Your task to perform on an android device: What's on my calendar today? Image 0: 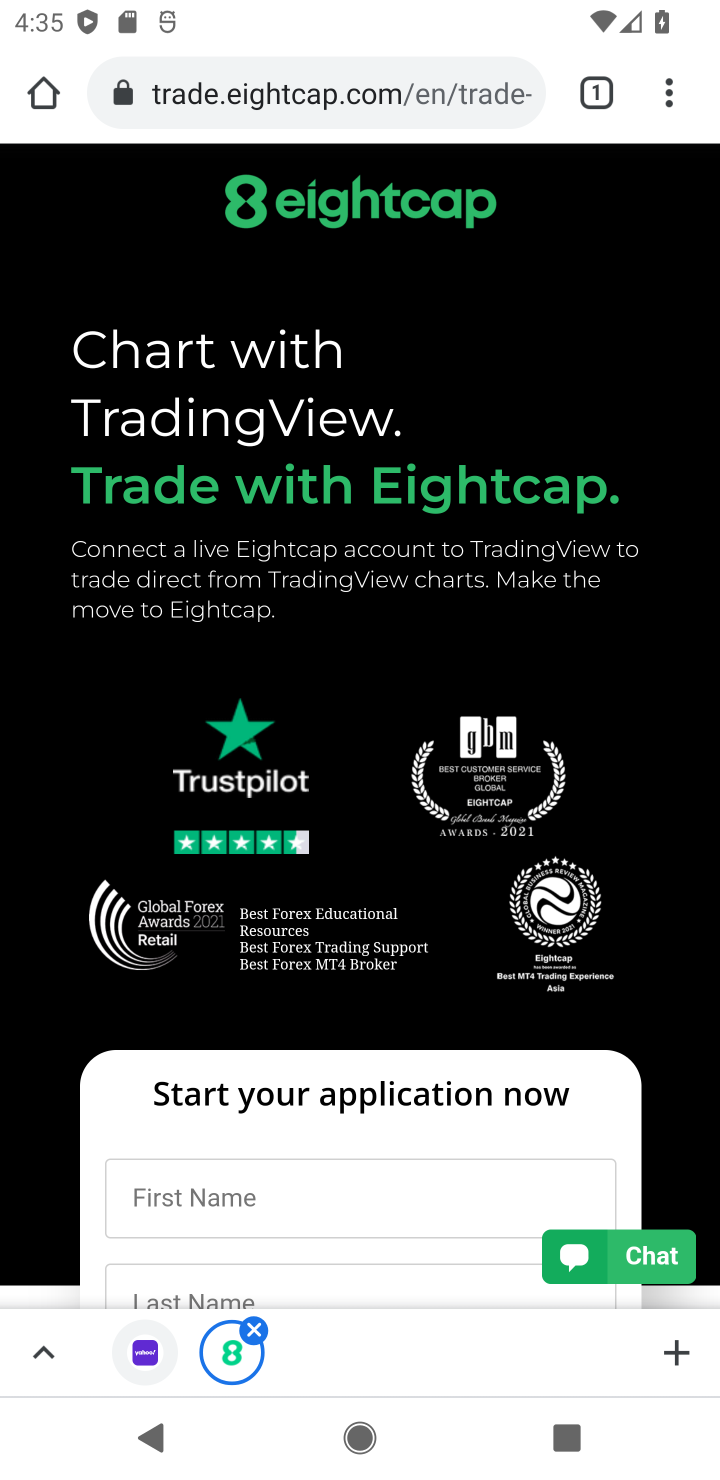
Step 0: press home button
Your task to perform on an android device: What's on my calendar today? Image 1: 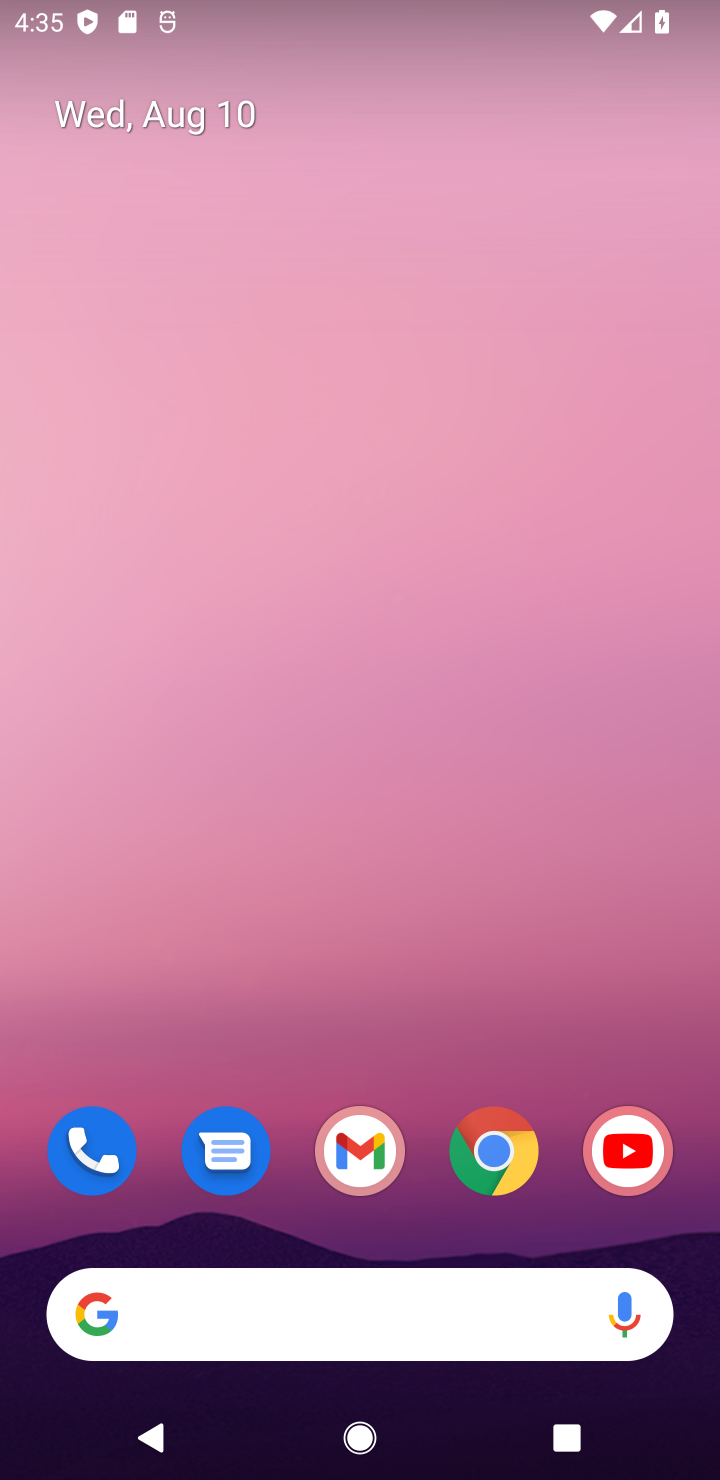
Step 1: drag from (337, 994) to (320, 559)
Your task to perform on an android device: What's on my calendar today? Image 2: 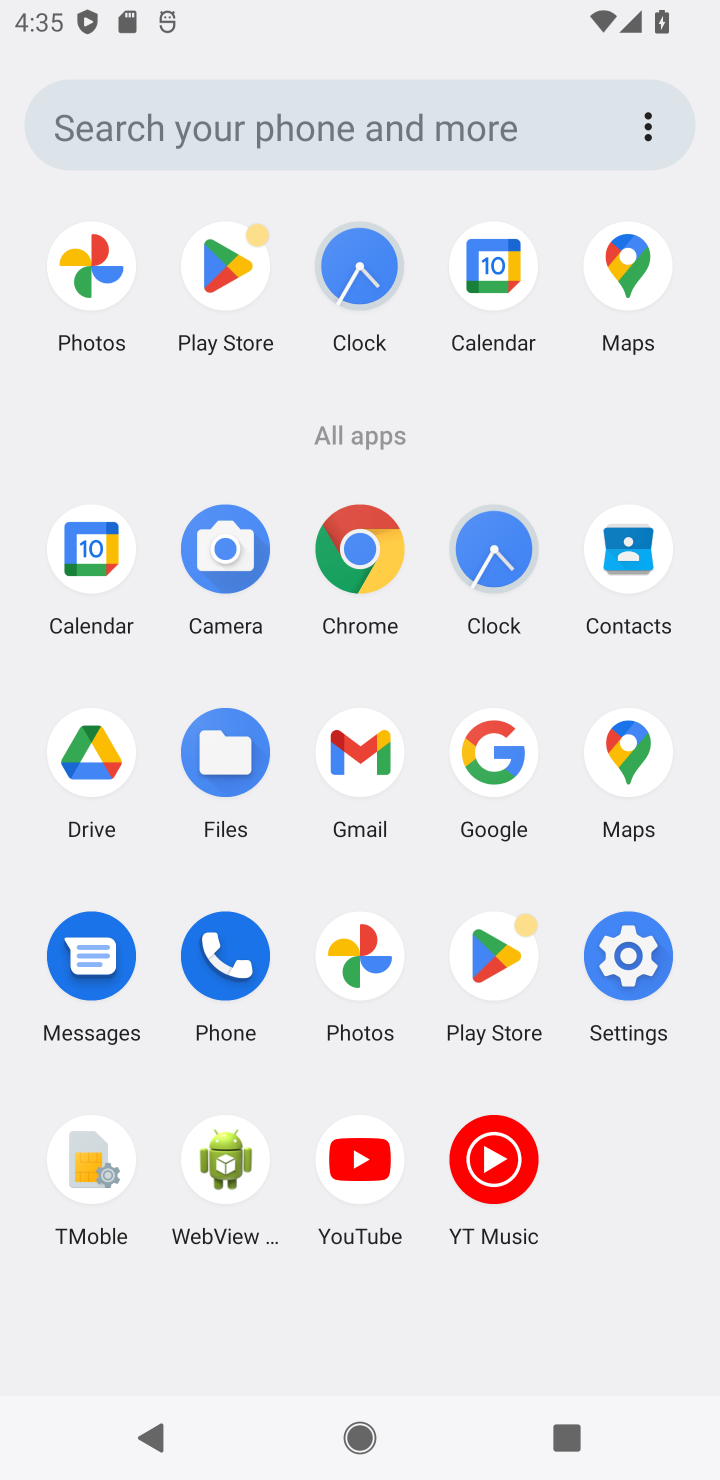
Step 2: click (90, 534)
Your task to perform on an android device: What's on my calendar today? Image 3: 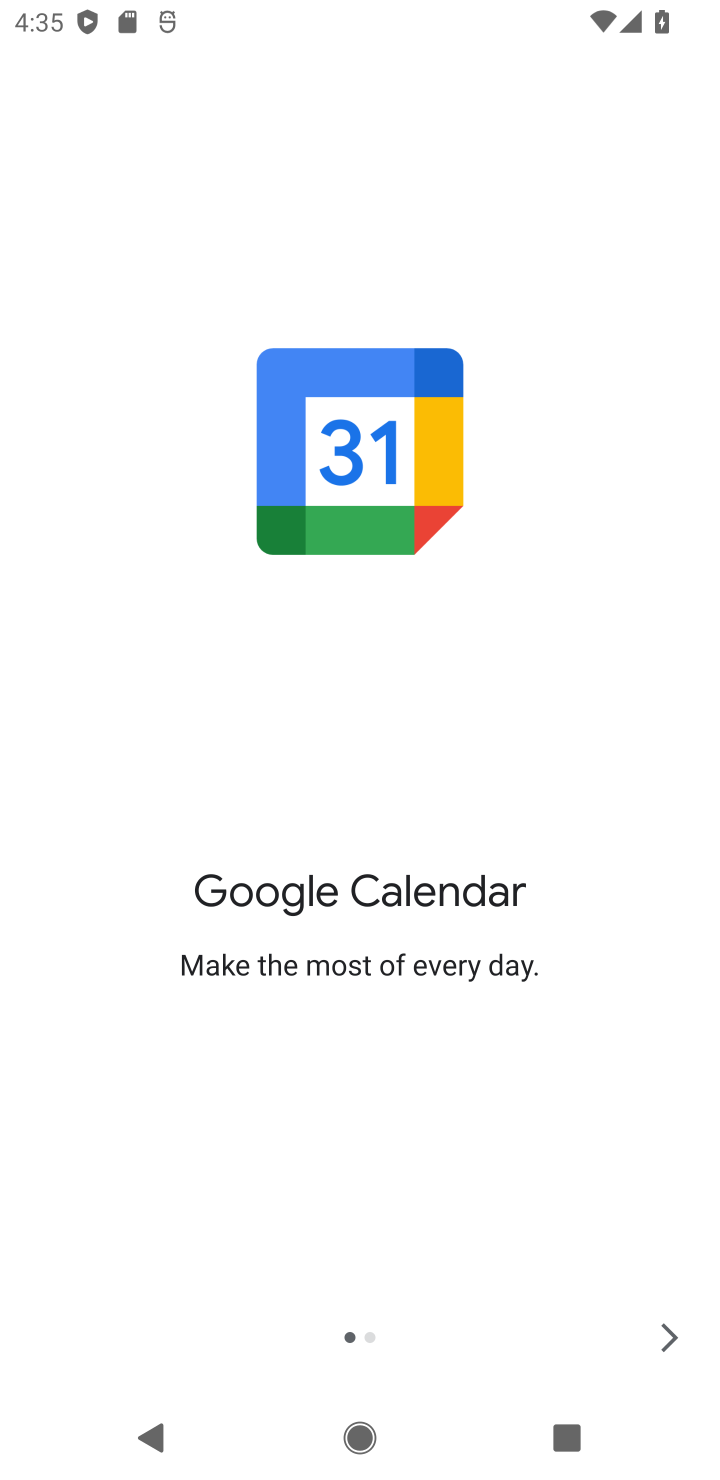
Step 3: click (665, 1348)
Your task to perform on an android device: What's on my calendar today? Image 4: 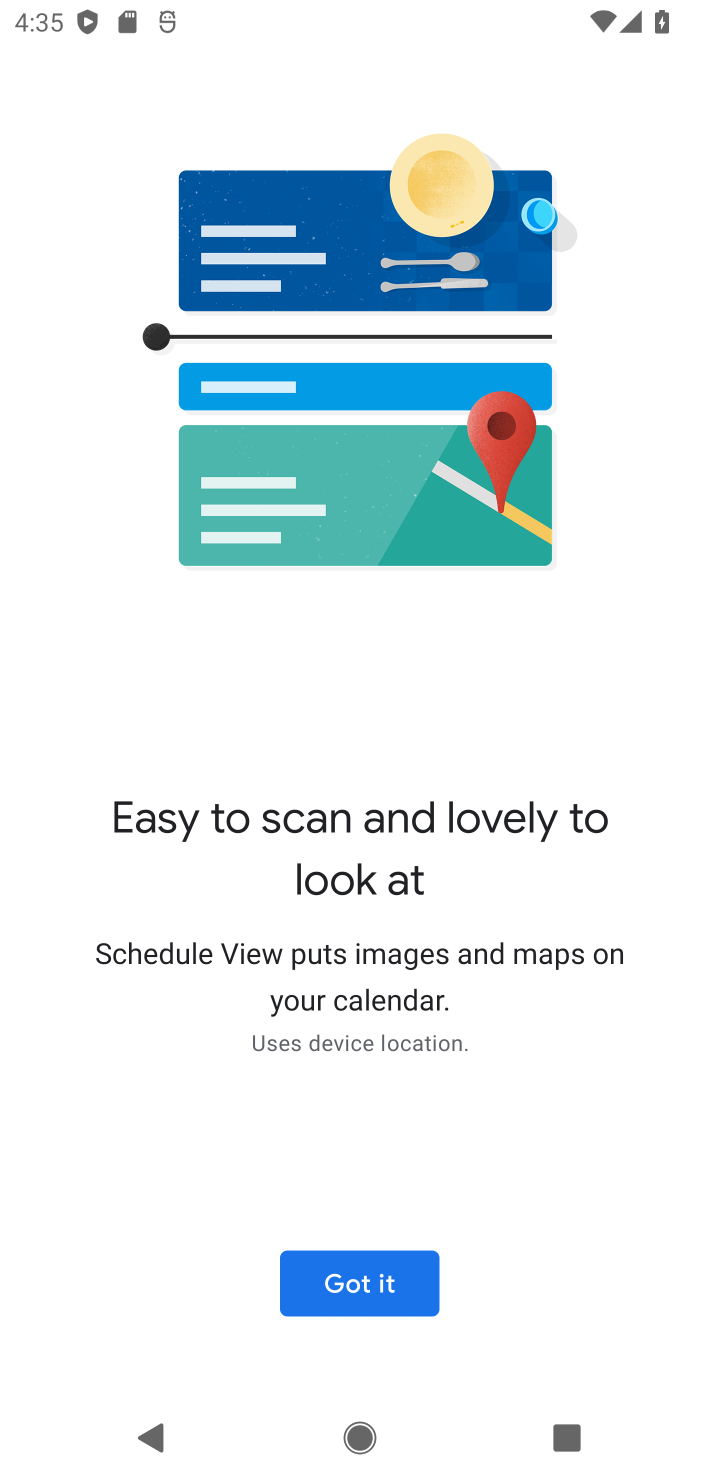
Step 4: click (359, 1264)
Your task to perform on an android device: What's on my calendar today? Image 5: 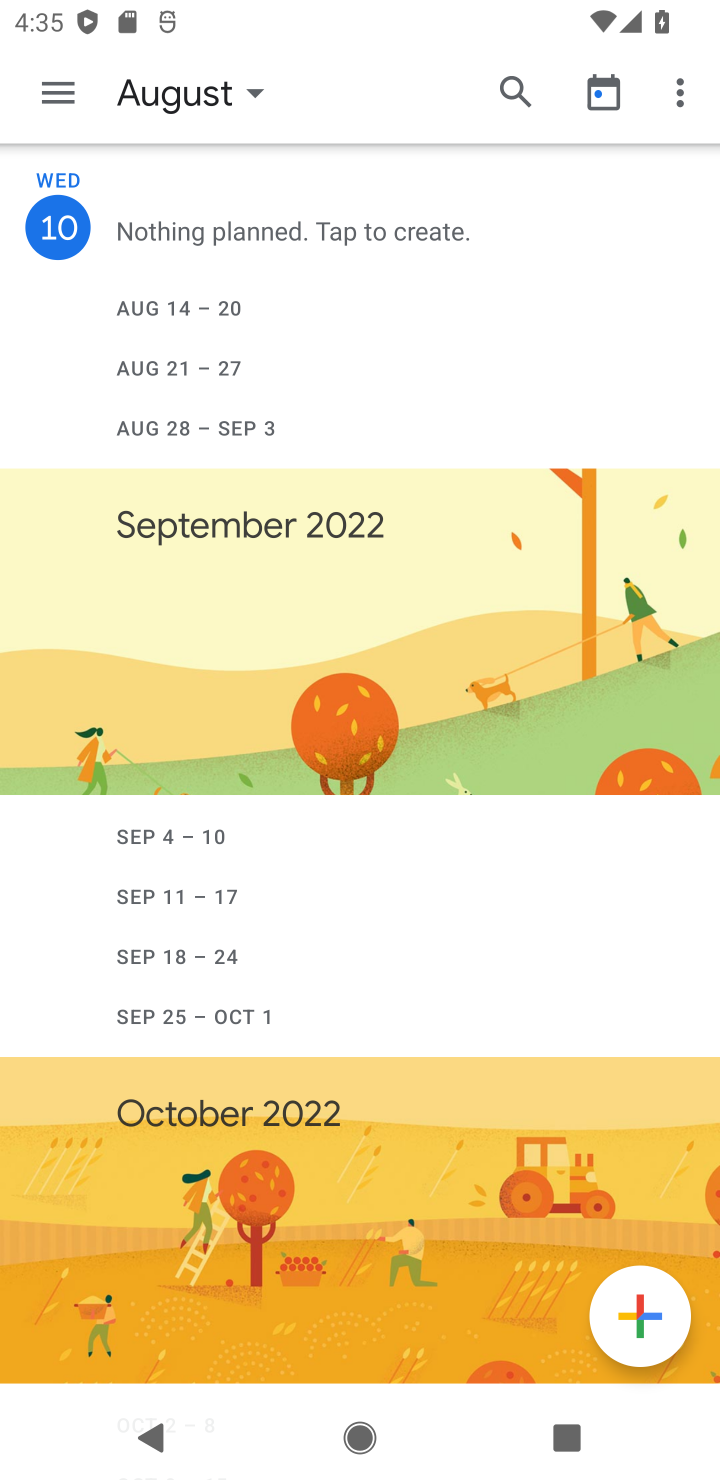
Step 5: task complete